Your task to perform on an android device: Open Yahoo.com Image 0: 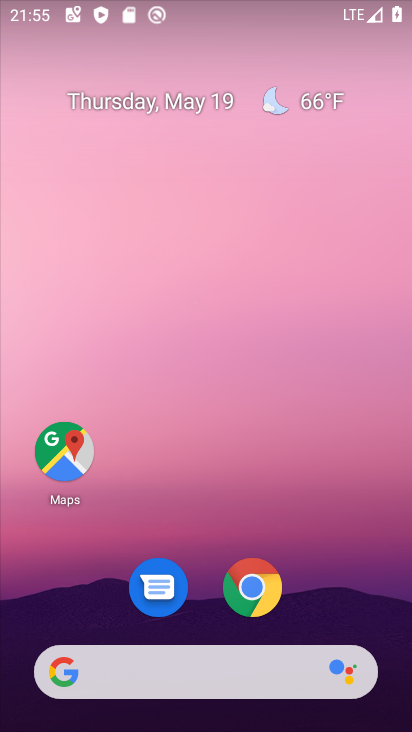
Step 0: drag from (238, 592) to (194, 278)
Your task to perform on an android device: Open Yahoo.com Image 1: 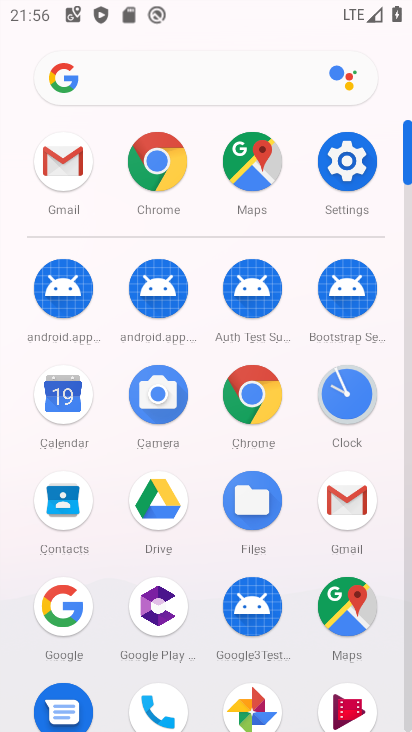
Step 1: click (163, 175)
Your task to perform on an android device: Open Yahoo.com Image 2: 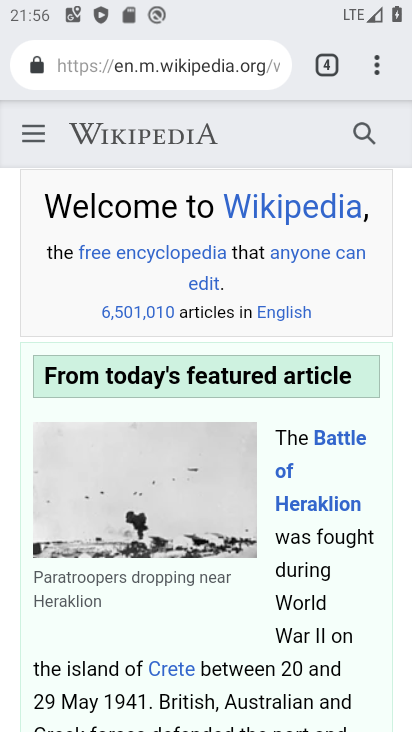
Step 2: click (178, 63)
Your task to perform on an android device: Open Yahoo.com Image 3: 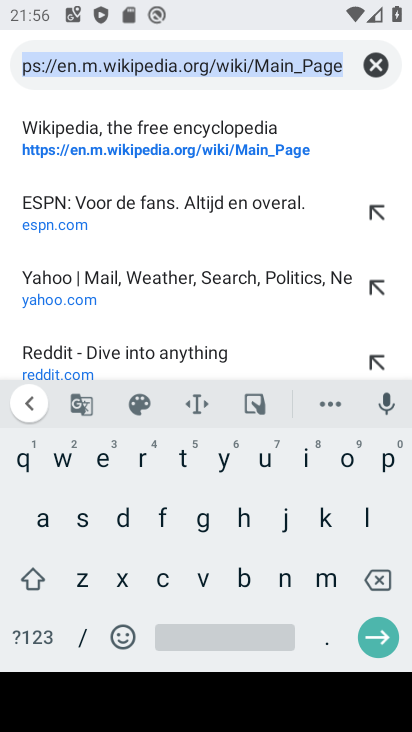
Step 3: click (222, 459)
Your task to perform on an android device: Open Yahoo.com Image 4: 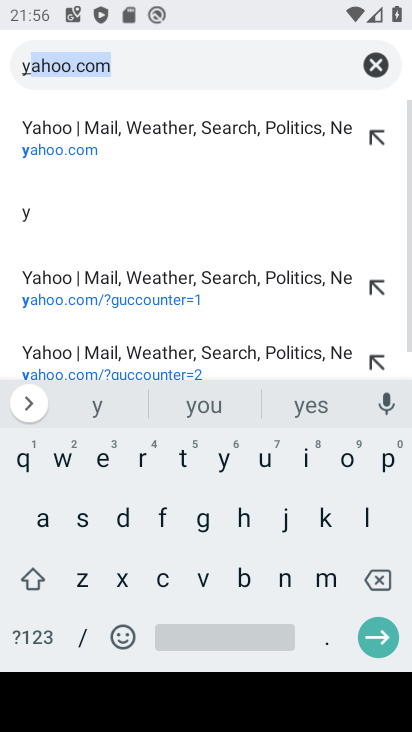
Step 4: click (123, 66)
Your task to perform on an android device: Open Yahoo.com Image 5: 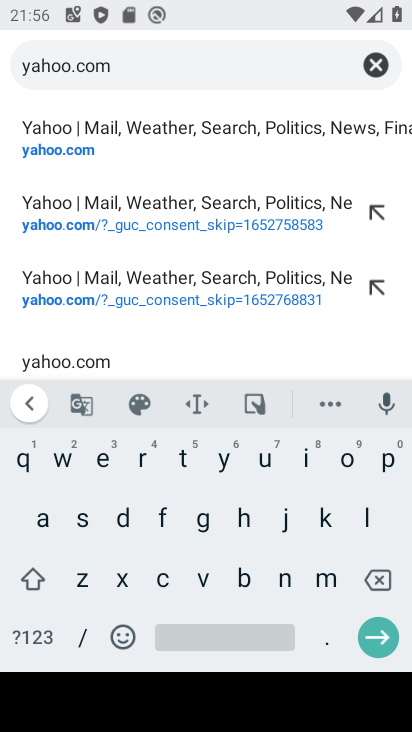
Step 5: click (379, 632)
Your task to perform on an android device: Open Yahoo.com Image 6: 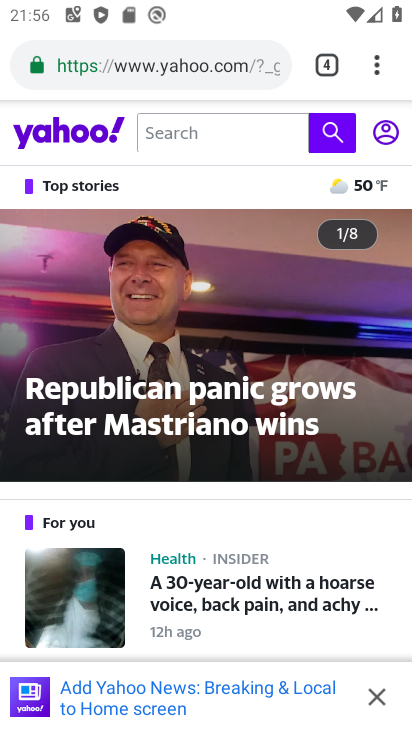
Step 6: task complete